Your task to perform on an android device: remove spam from my inbox in the gmail app Image 0: 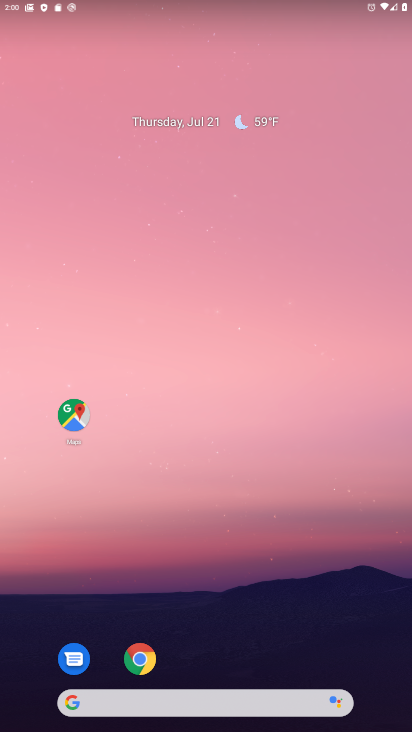
Step 0: drag from (320, 677) to (305, 233)
Your task to perform on an android device: remove spam from my inbox in the gmail app Image 1: 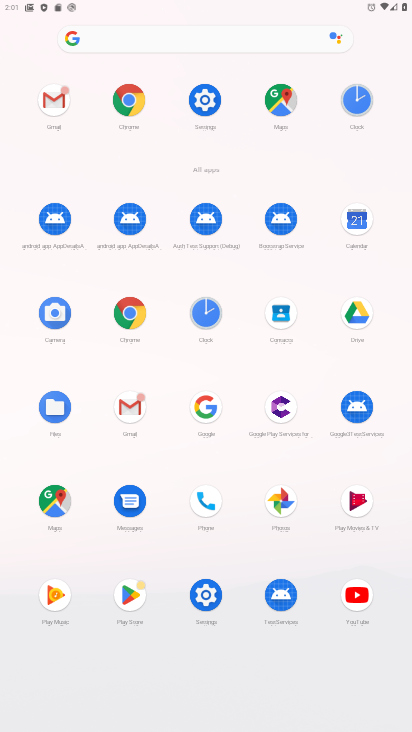
Step 1: click (54, 96)
Your task to perform on an android device: remove spam from my inbox in the gmail app Image 2: 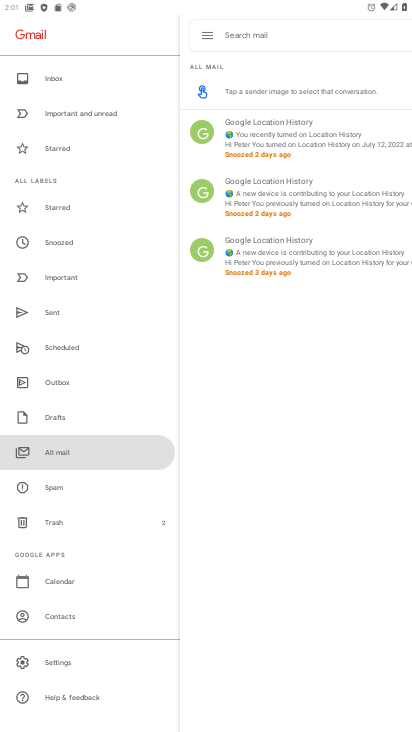
Step 2: click (51, 486)
Your task to perform on an android device: remove spam from my inbox in the gmail app Image 3: 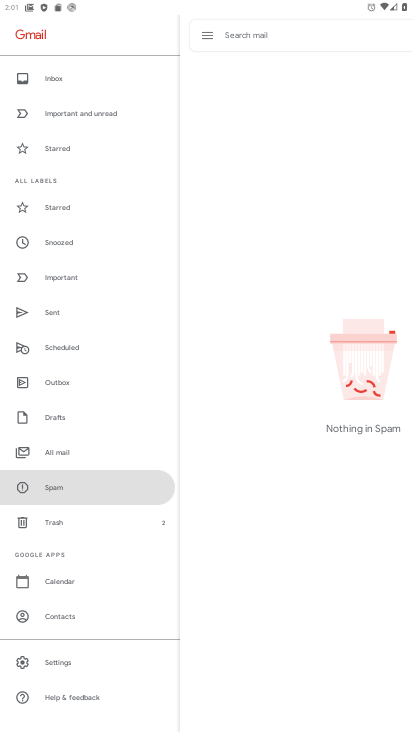
Step 3: click (46, 83)
Your task to perform on an android device: remove spam from my inbox in the gmail app Image 4: 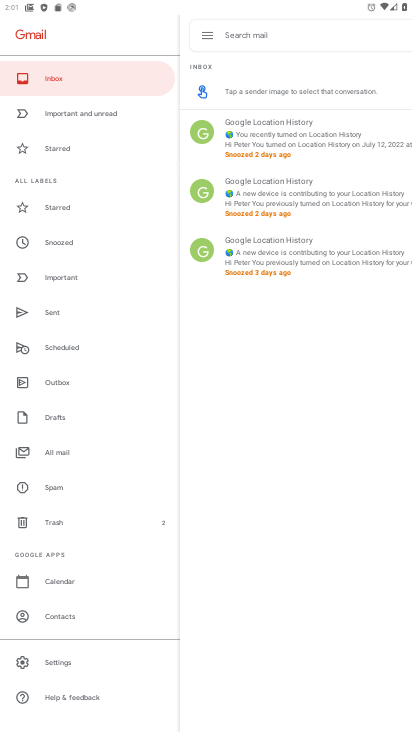
Step 4: task complete